Your task to perform on an android device: open app "Contacts" Image 0: 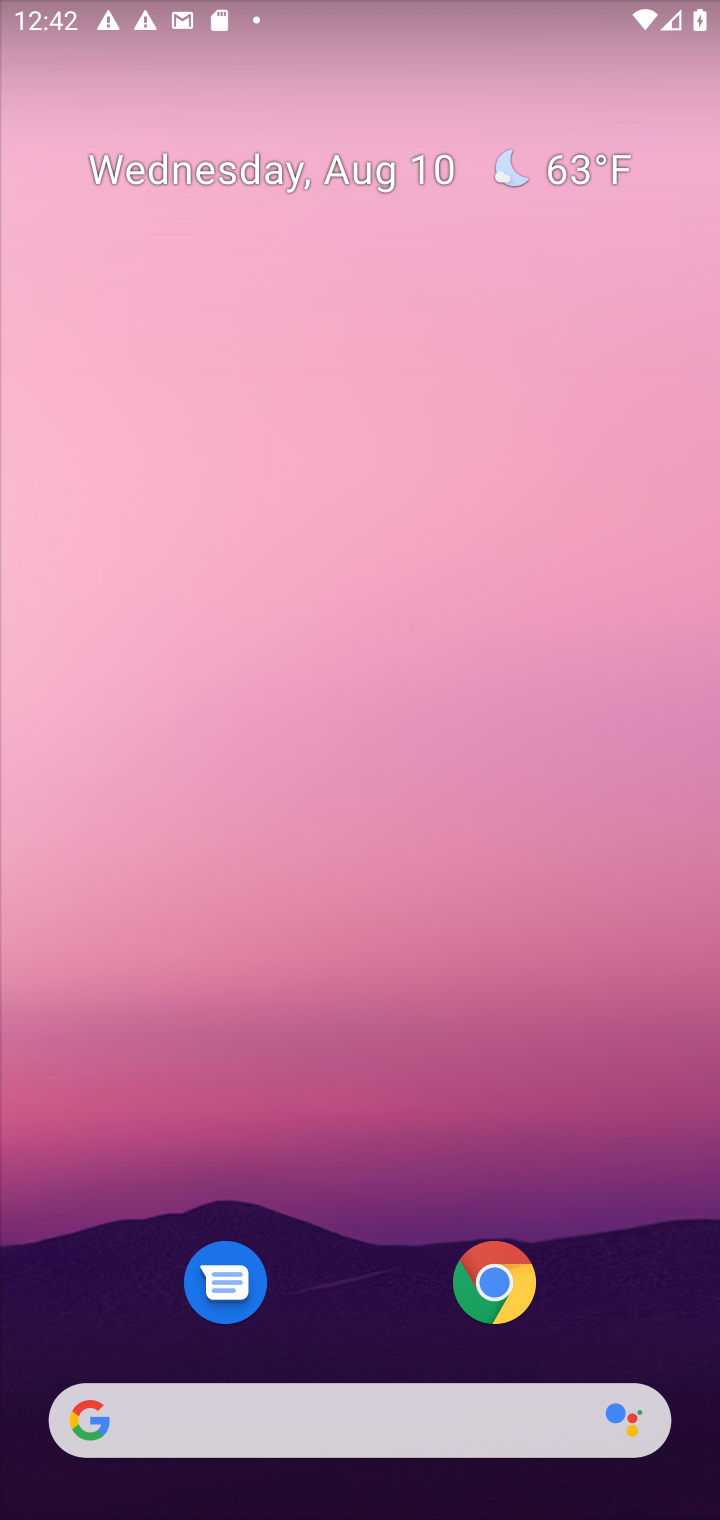
Step 0: drag from (448, 1263) to (357, 155)
Your task to perform on an android device: open app "Contacts" Image 1: 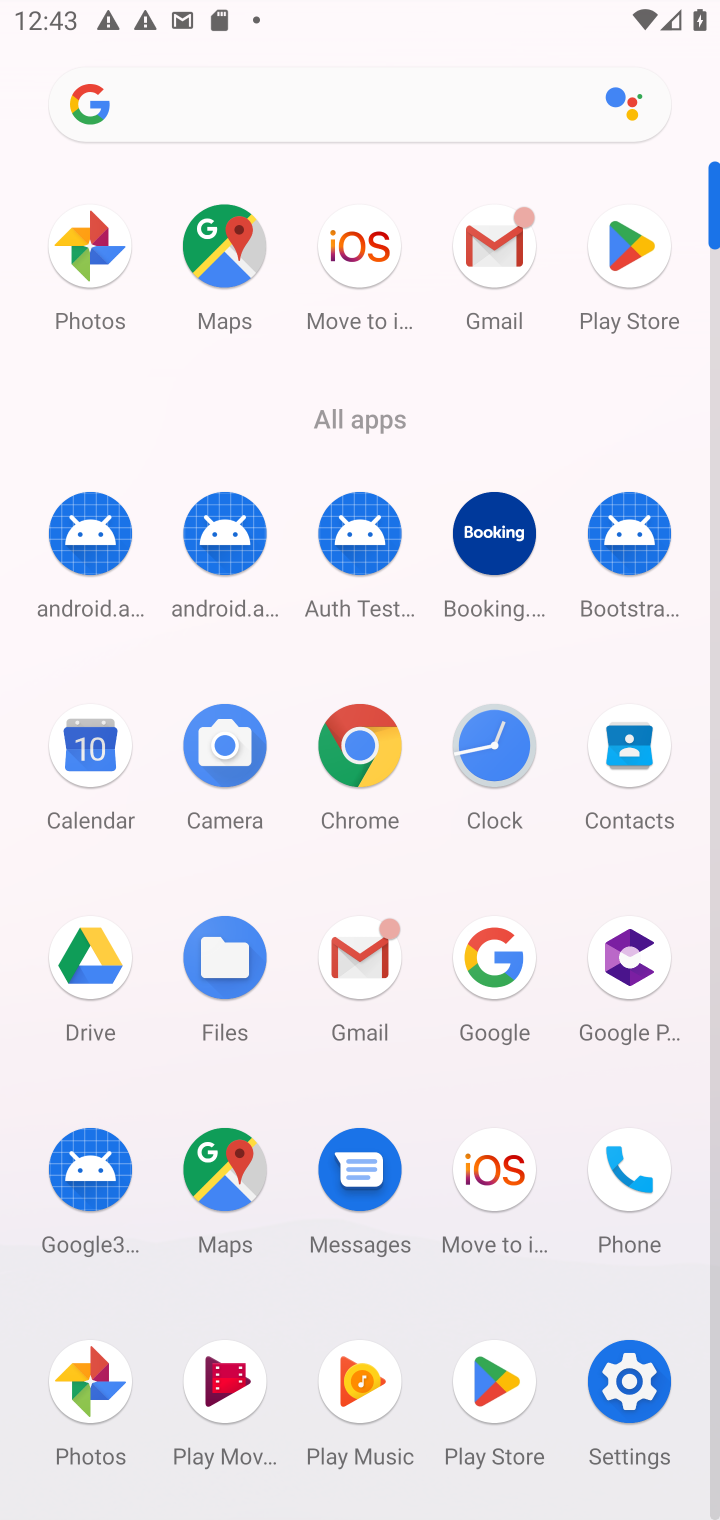
Step 1: click (649, 240)
Your task to perform on an android device: open app "Contacts" Image 2: 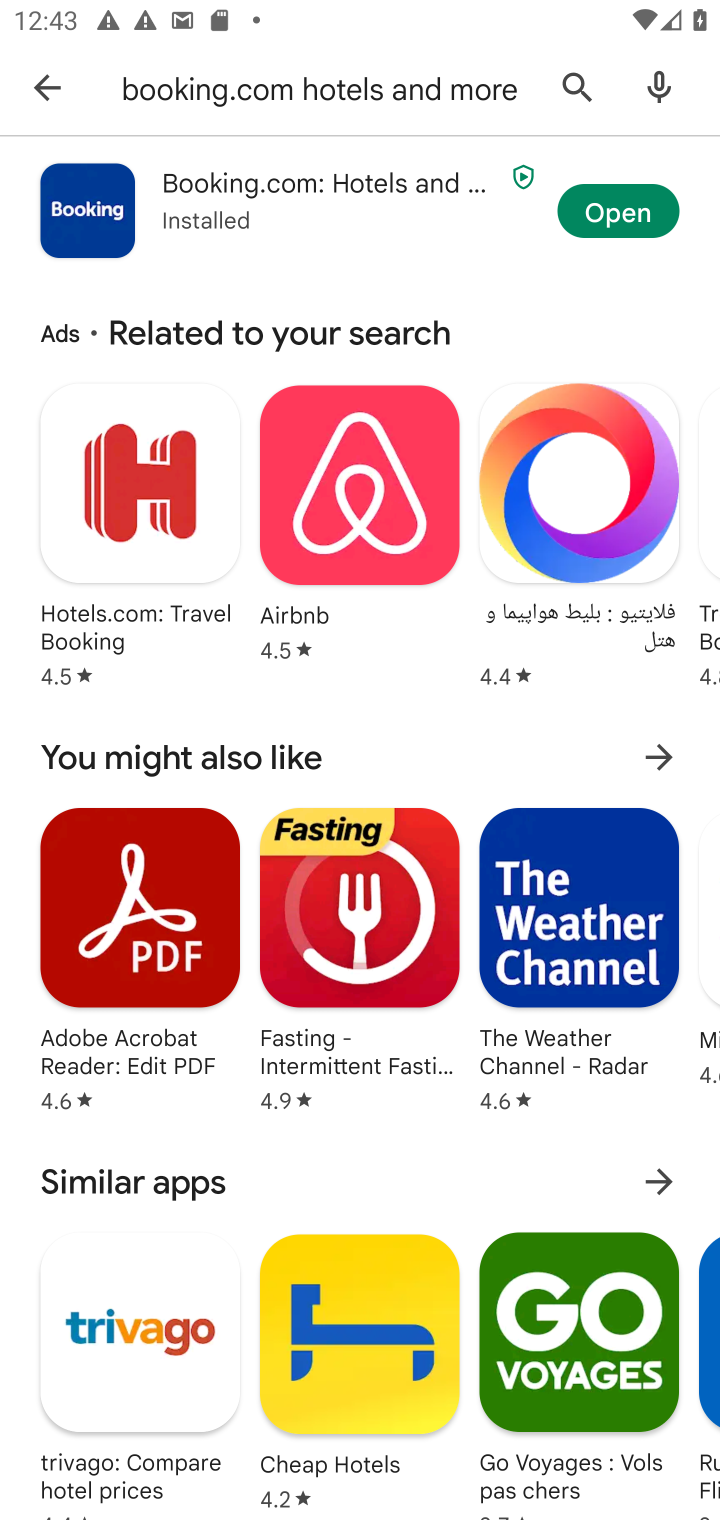
Step 2: click (39, 82)
Your task to perform on an android device: open app "Contacts" Image 3: 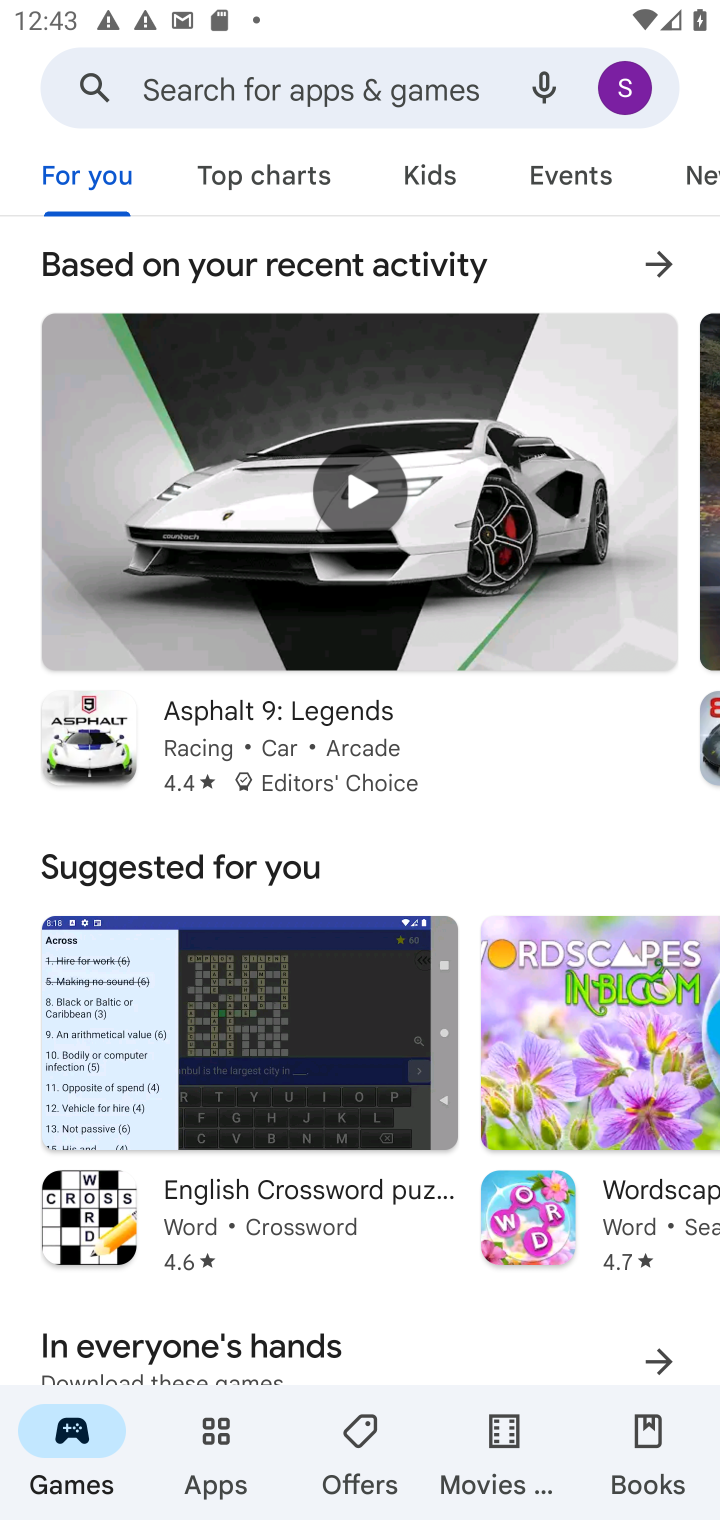
Step 3: click (322, 78)
Your task to perform on an android device: open app "Contacts" Image 4: 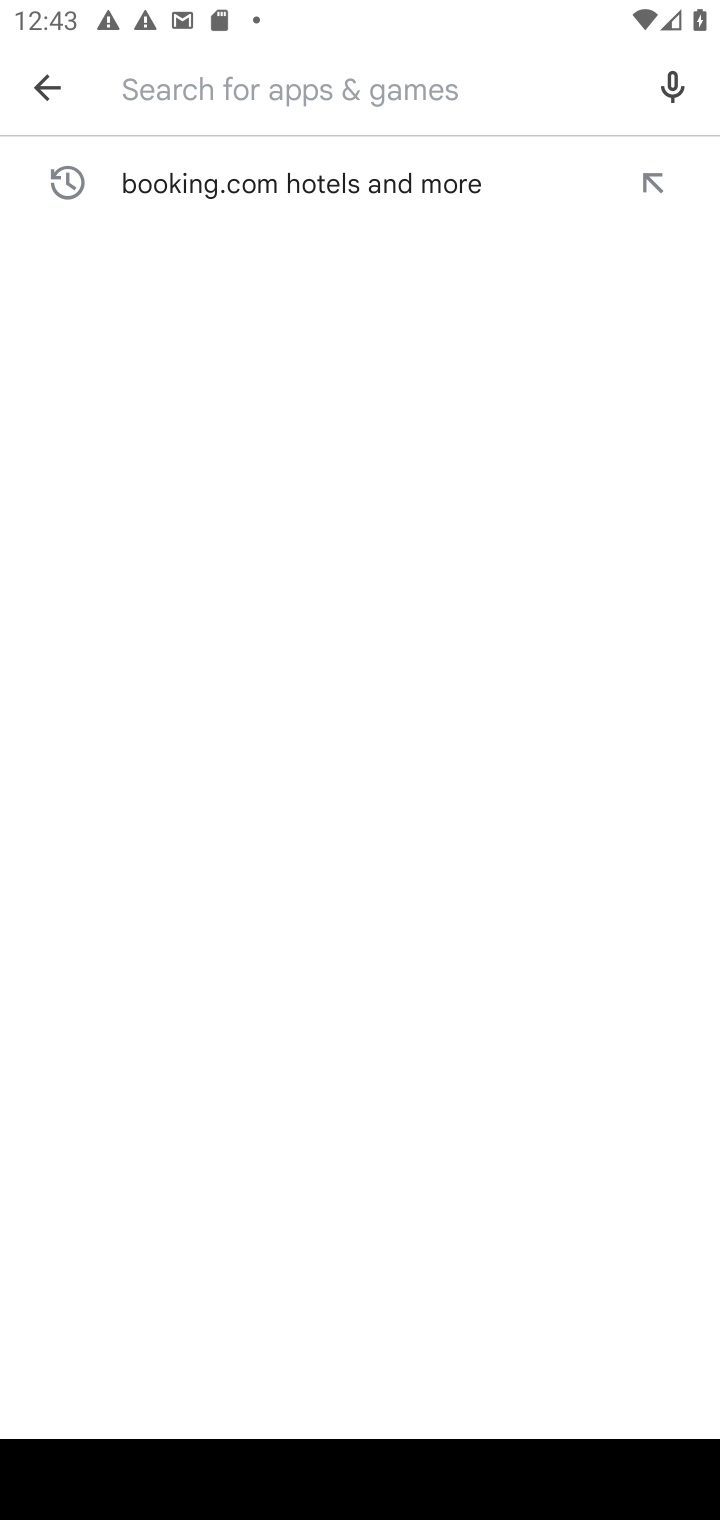
Step 4: type "Contacts "
Your task to perform on an android device: open app "Contacts" Image 5: 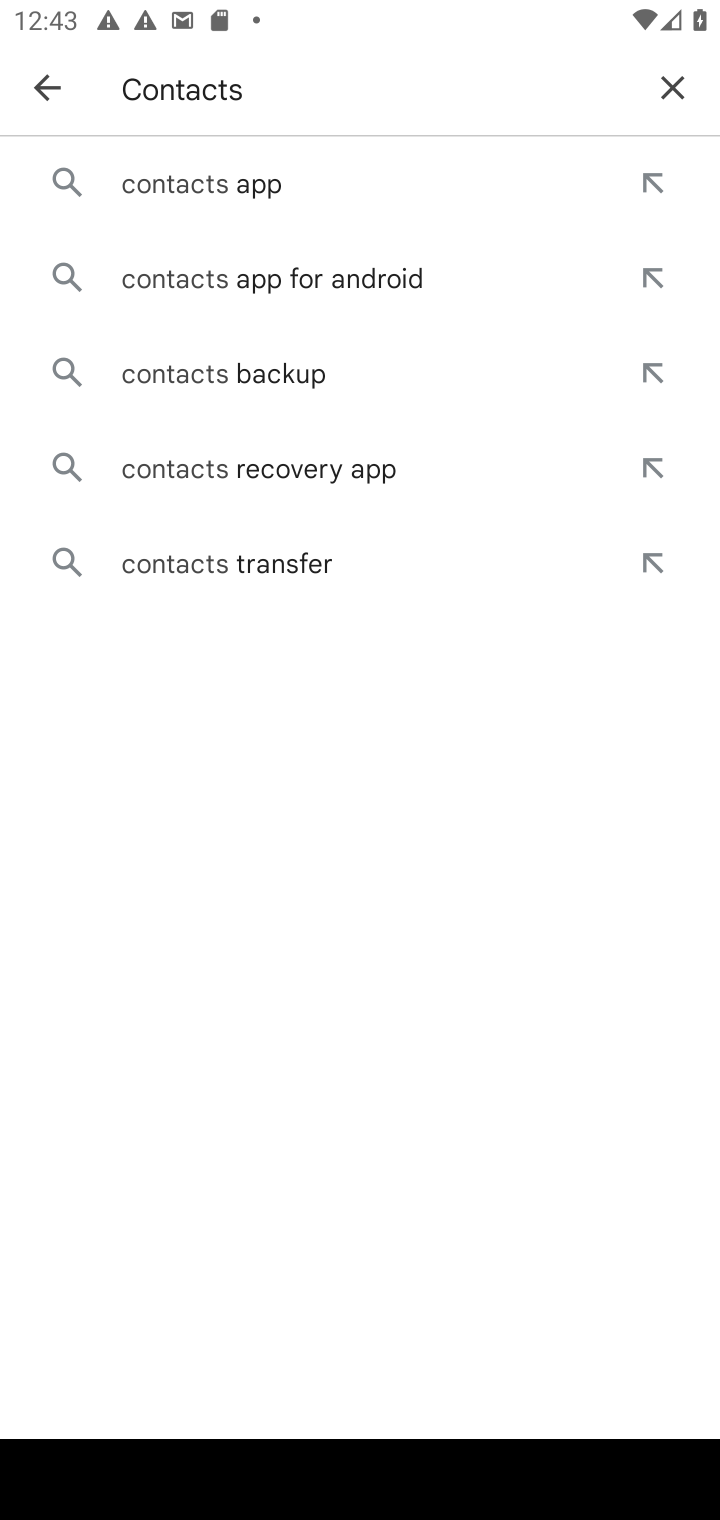
Step 5: click (185, 184)
Your task to perform on an android device: open app "Contacts" Image 6: 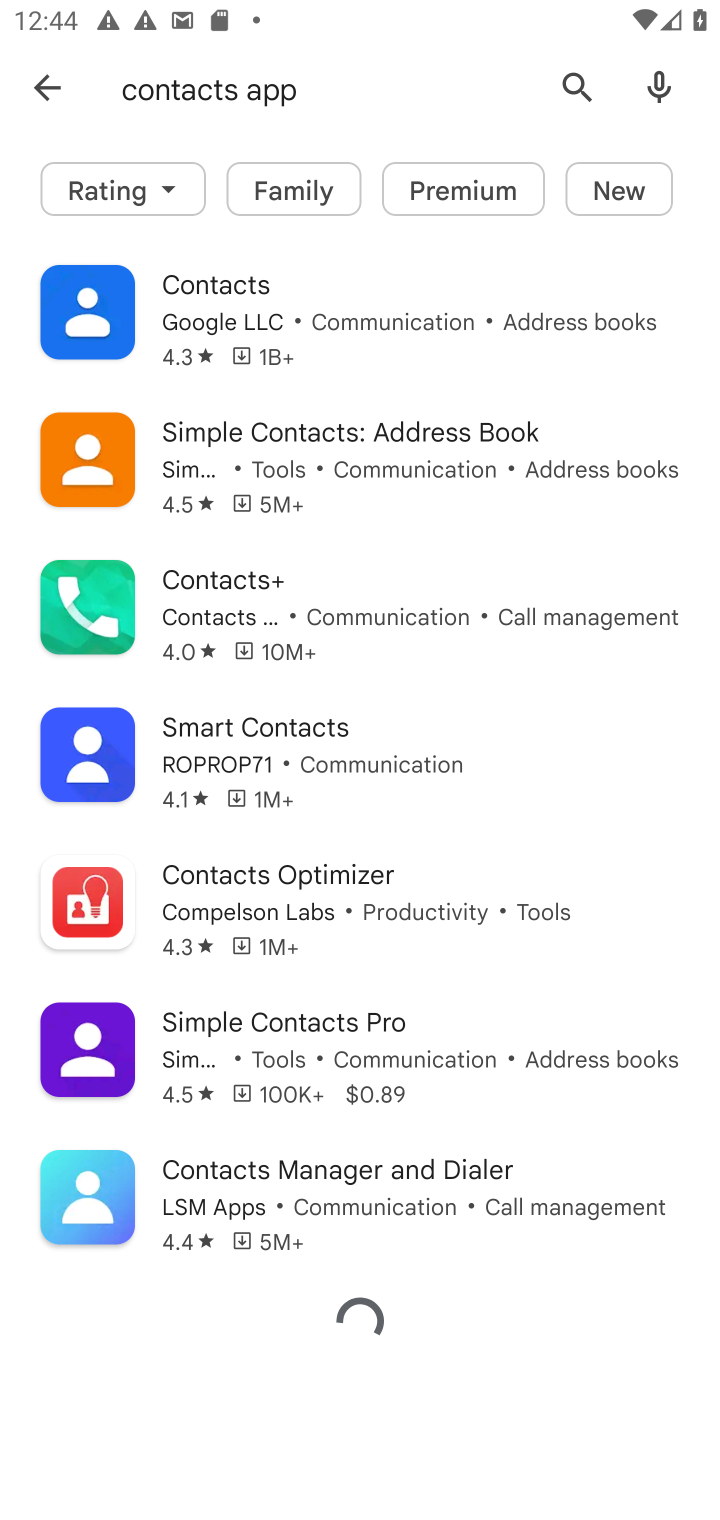
Step 6: click (339, 281)
Your task to perform on an android device: open app "Contacts" Image 7: 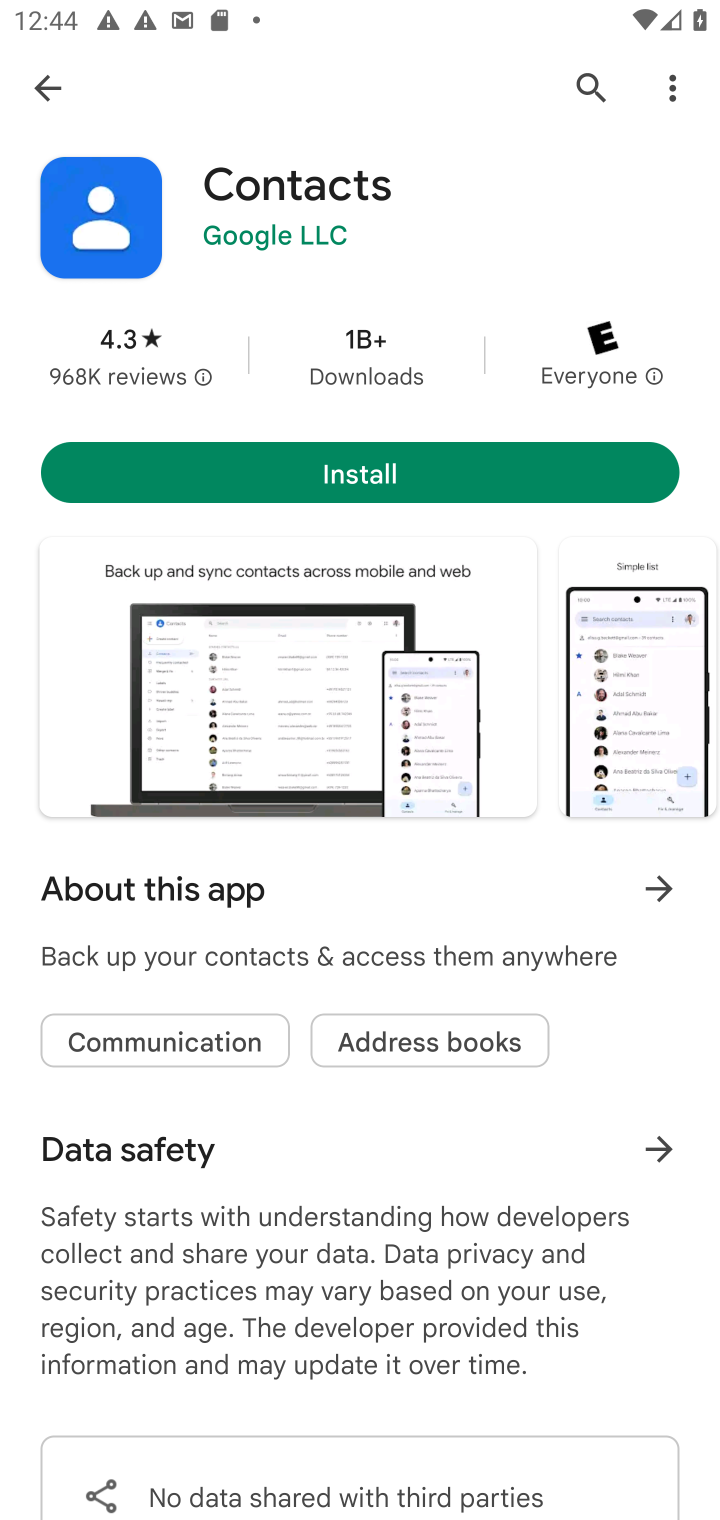
Step 7: click (389, 485)
Your task to perform on an android device: open app "Contacts" Image 8: 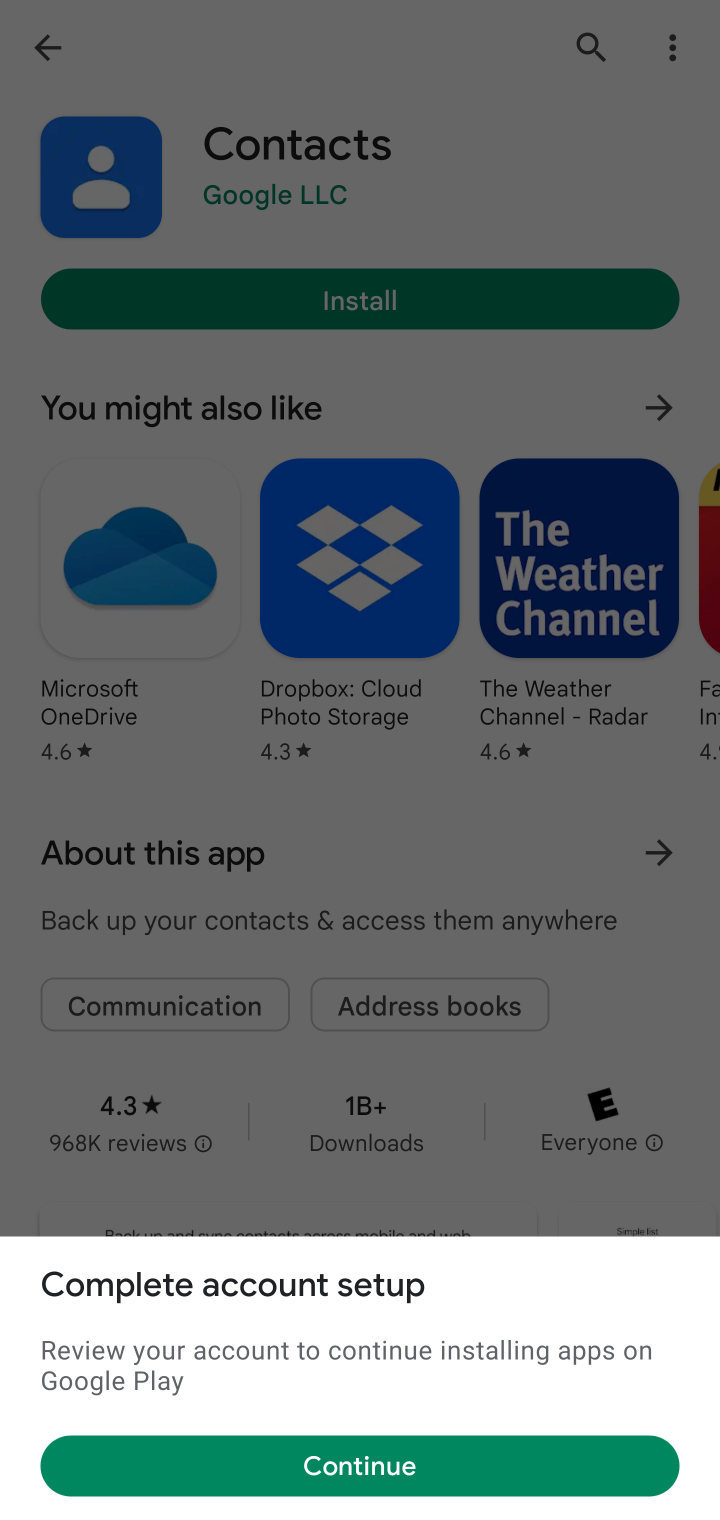
Step 8: click (493, 1173)
Your task to perform on an android device: open app "Contacts" Image 9: 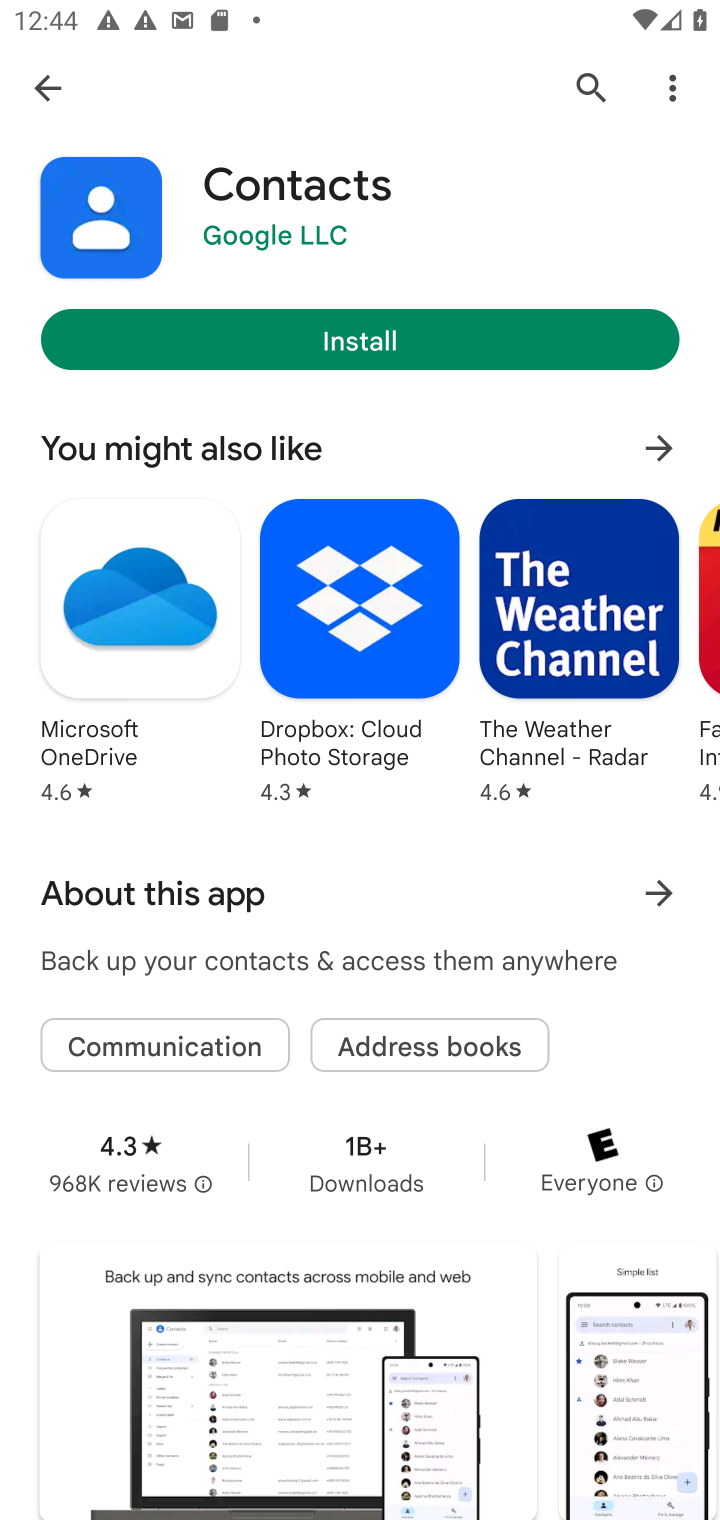
Step 9: click (459, 310)
Your task to perform on an android device: open app "Contacts" Image 10: 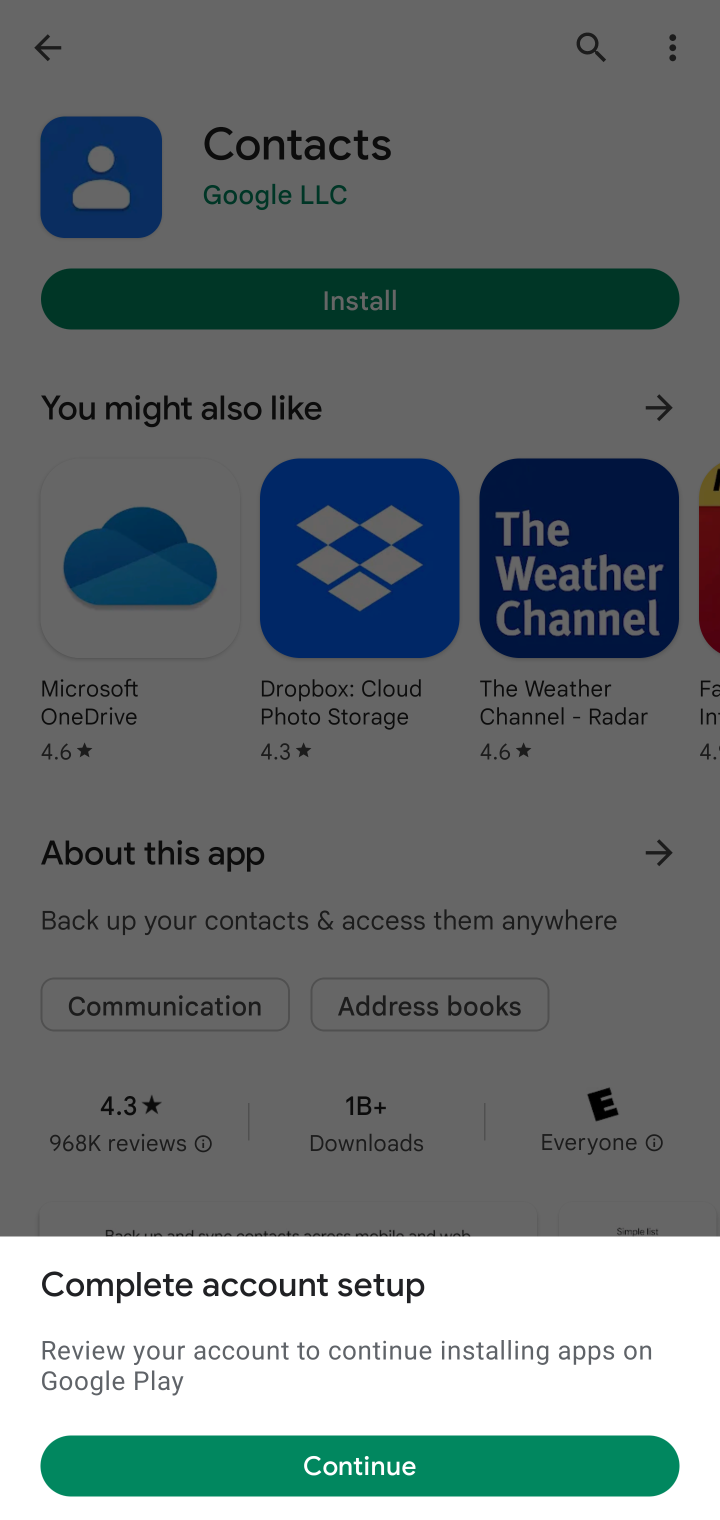
Step 10: task complete